Your task to perform on an android device: Open the Play Movies app and select the watchlist tab. Image 0: 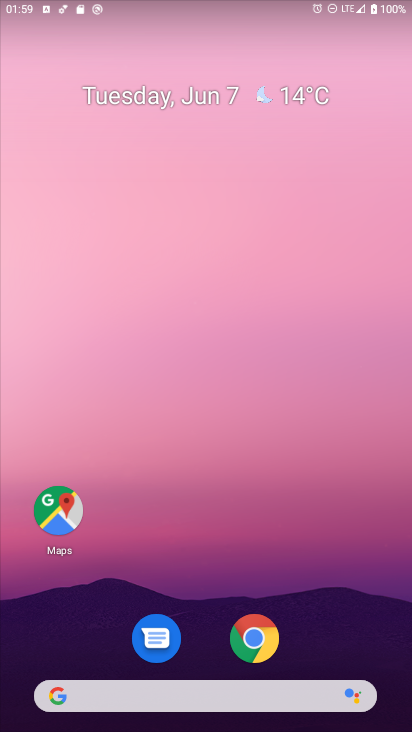
Step 0: drag from (226, 718) to (263, 173)
Your task to perform on an android device: Open the Play Movies app and select the watchlist tab. Image 1: 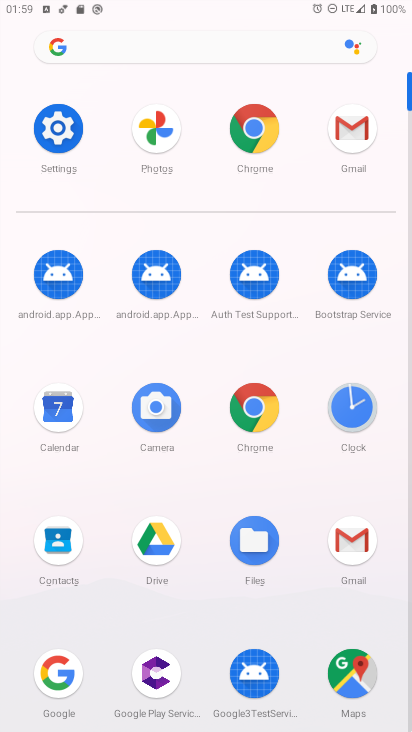
Step 1: drag from (289, 585) to (314, 341)
Your task to perform on an android device: Open the Play Movies app and select the watchlist tab. Image 2: 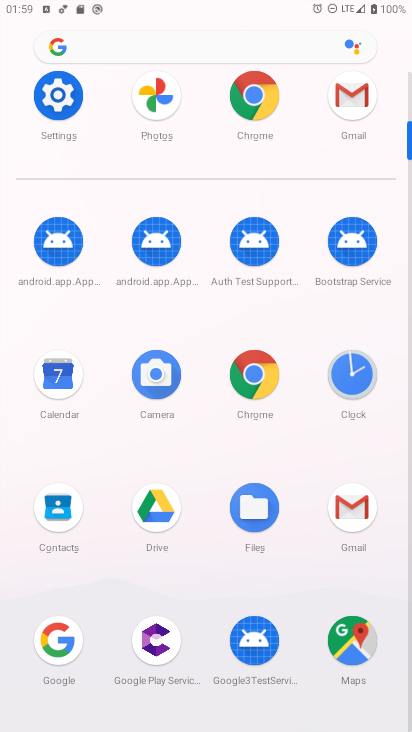
Step 2: drag from (279, 595) to (274, 426)
Your task to perform on an android device: Open the Play Movies app and select the watchlist tab. Image 3: 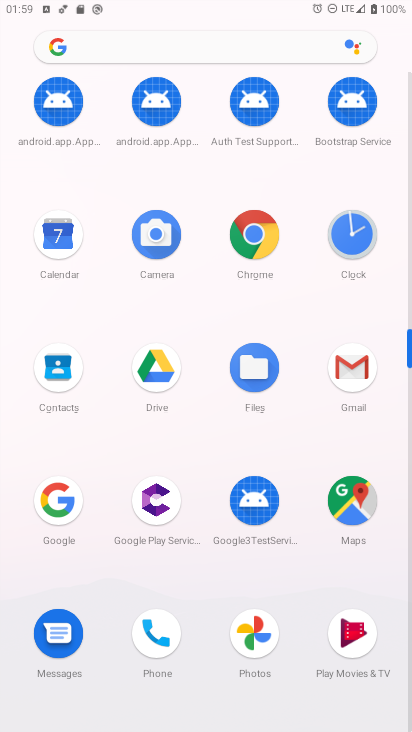
Step 3: click (345, 624)
Your task to perform on an android device: Open the Play Movies app and select the watchlist tab. Image 4: 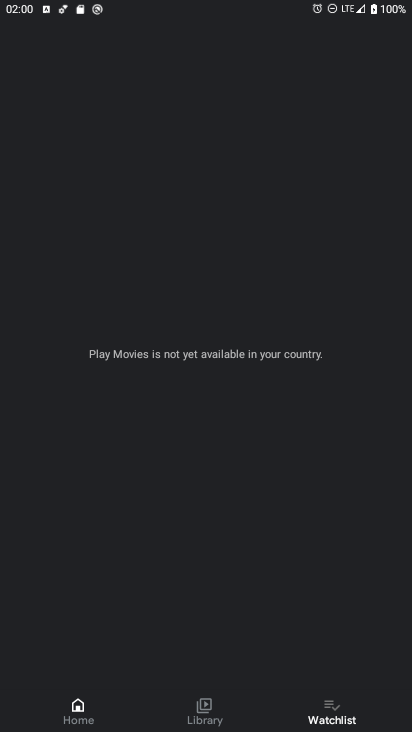
Step 4: task complete